Your task to perform on an android device: change alarm snooze length Image 0: 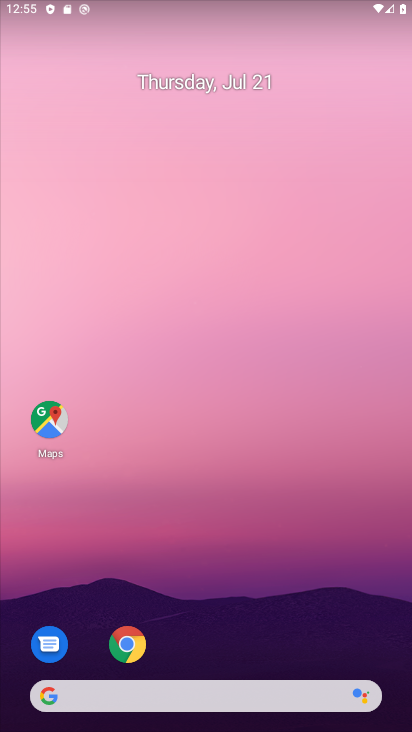
Step 0: drag from (252, 634) to (210, 282)
Your task to perform on an android device: change alarm snooze length Image 1: 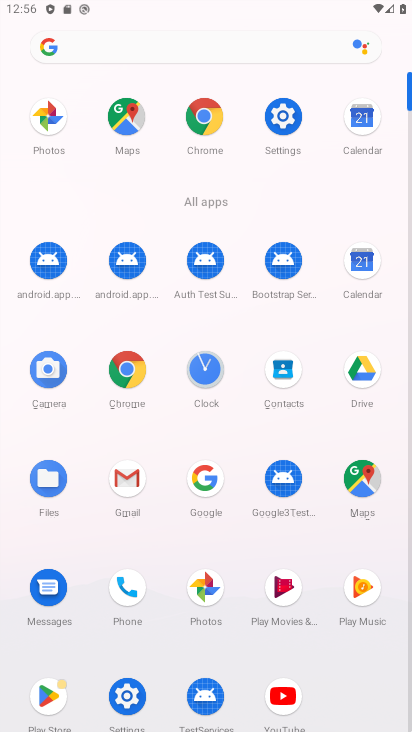
Step 1: click (200, 359)
Your task to perform on an android device: change alarm snooze length Image 2: 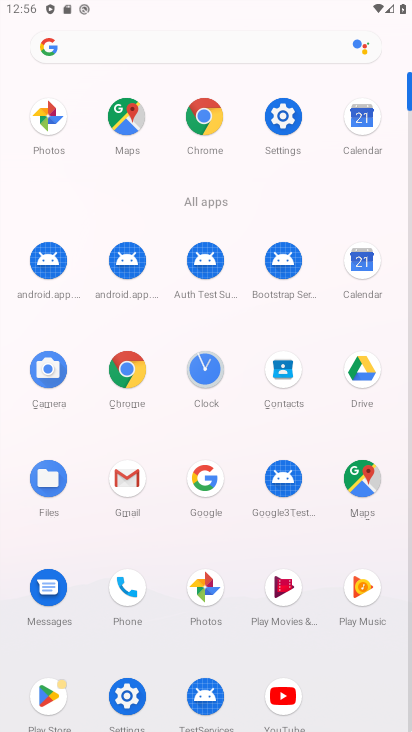
Step 2: click (200, 361)
Your task to perform on an android device: change alarm snooze length Image 3: 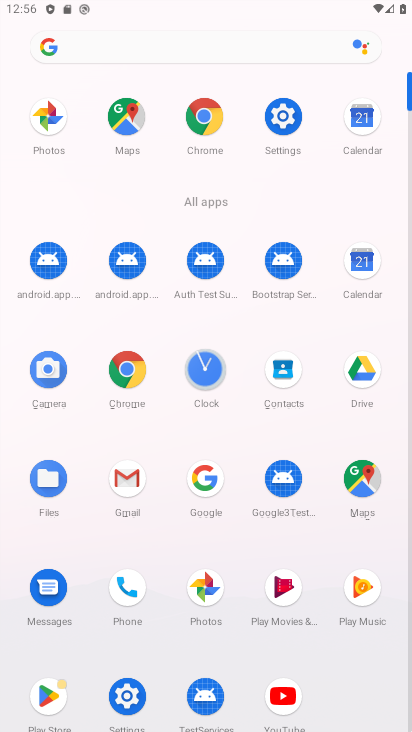
Step 3: click (201, 362)
Your task to perform on an android device: change alarm snooze length Image 4: 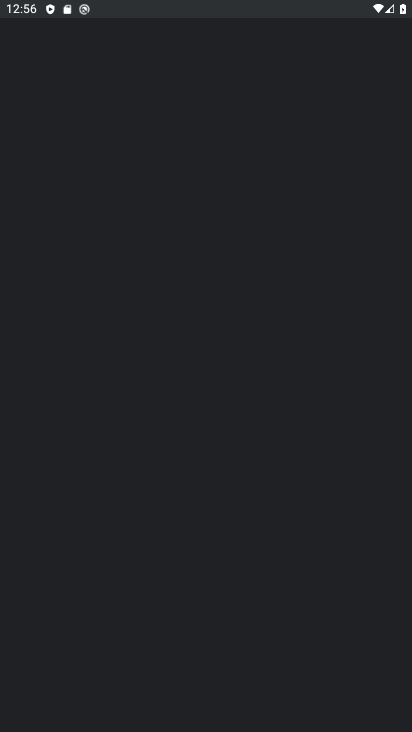
Step 4: click (203, 364)
Your task to perform on an android device: change alarm snooze length Image 5: 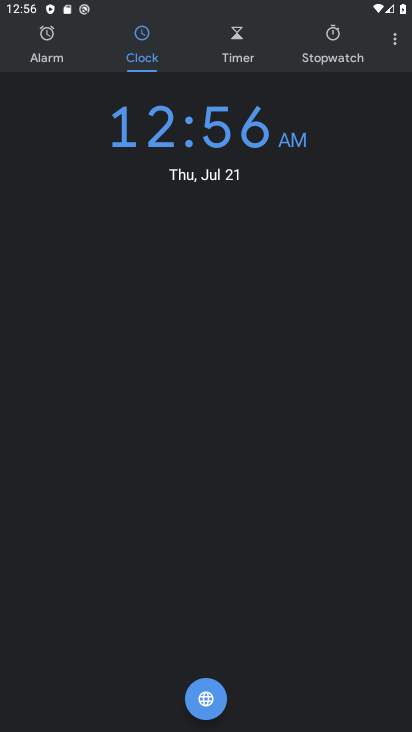
Step 5: click (48, 53)
Your task to perform on an android device: change alarm snooze length Image 6: 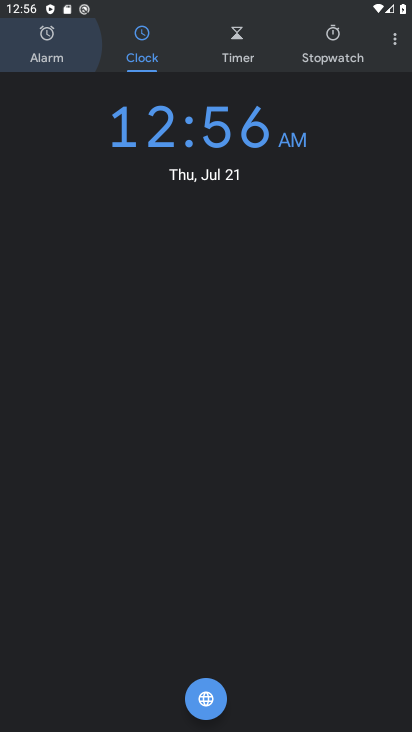
Step 6: click (51, 56)
Your task to perform on an android device: change alarm snooze length Image 7: 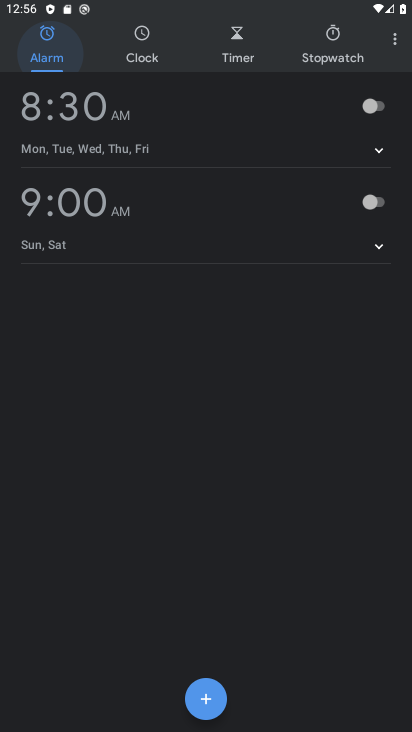
Step 7: click (53, 58)
Your task to perform on an android device: change alarm snooze length Image 8: 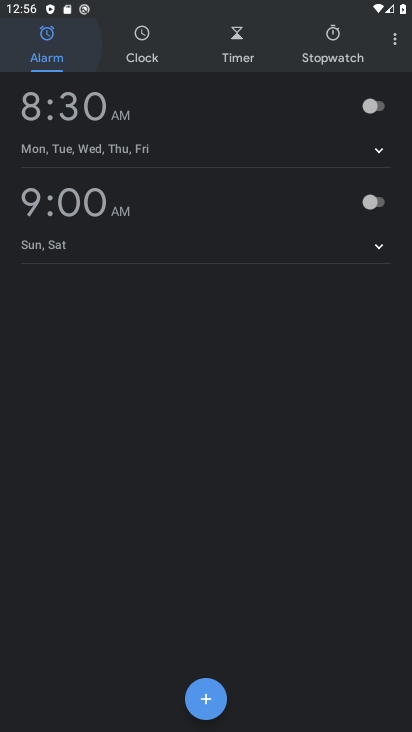
Step 8: click (54, 59)
Your task to perform on an android device: change alarm snooze length Image 9: 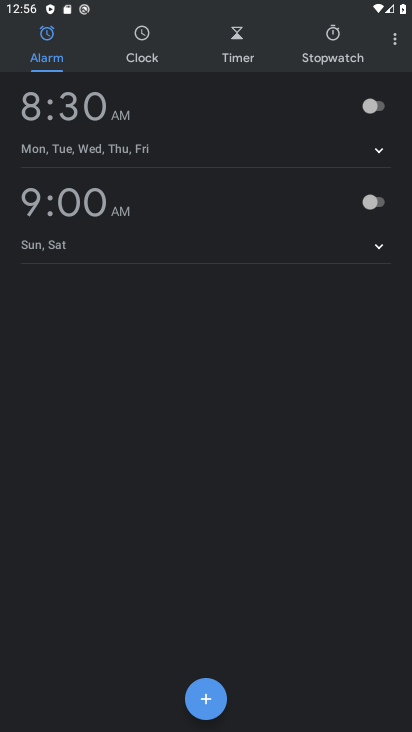
Step 9: click (384, 42)
Your task to perform on an android device: change alarm snooze length Image 10: 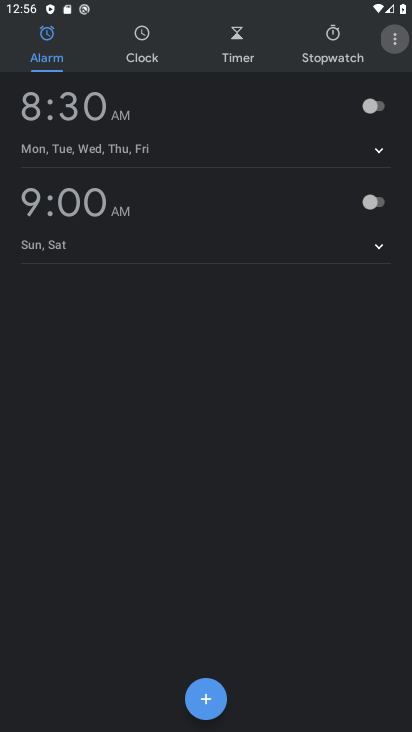
Step 10: click (387, 44)
Your task to perform on an android device: change alarm snooze length Image 11: 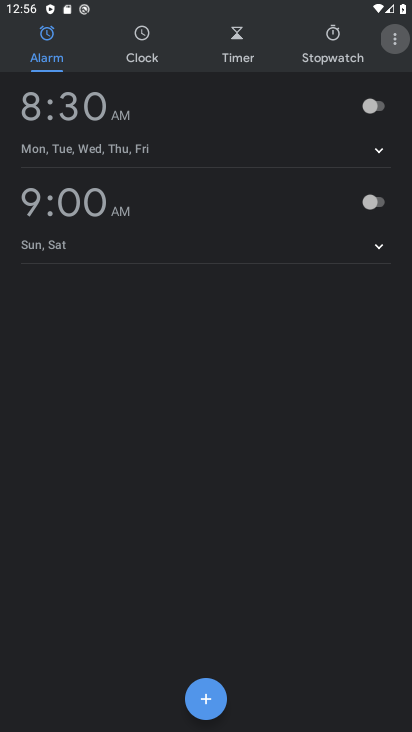
Step 11: click (389, 46)
Your task to perform on an android device: change alarm snooze length Image 12: 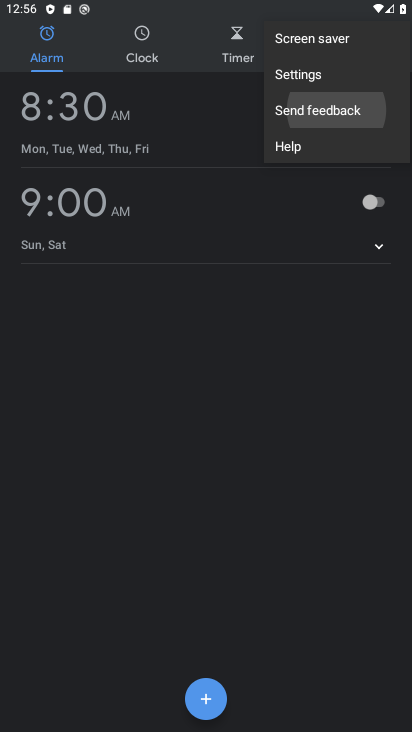
Step 12: click (390, 47)
Your task to perform on an android device: change alarm snooze length Image 13: 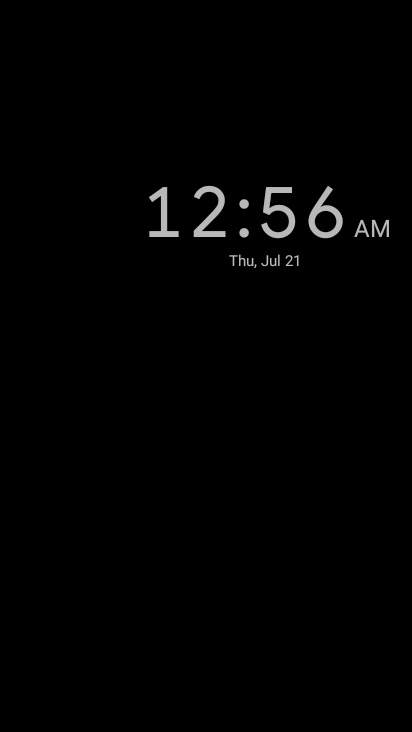
Step 13: press back button
Your task to perform on an android device: change alarm snooze length Image 14: 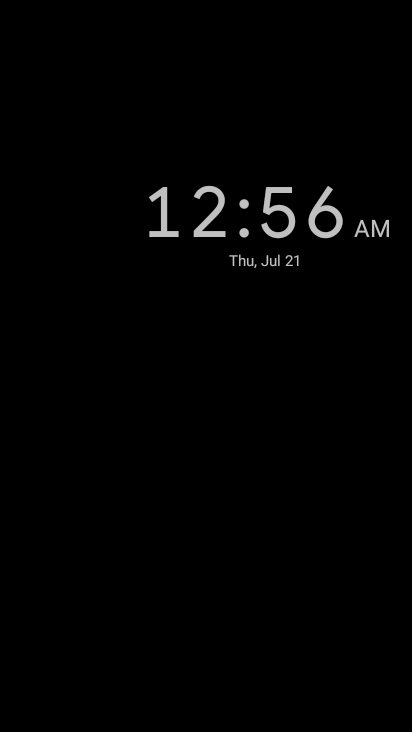
Step 14: press back button
Your task to perform on an android device: change alarm snooze length Image 15: 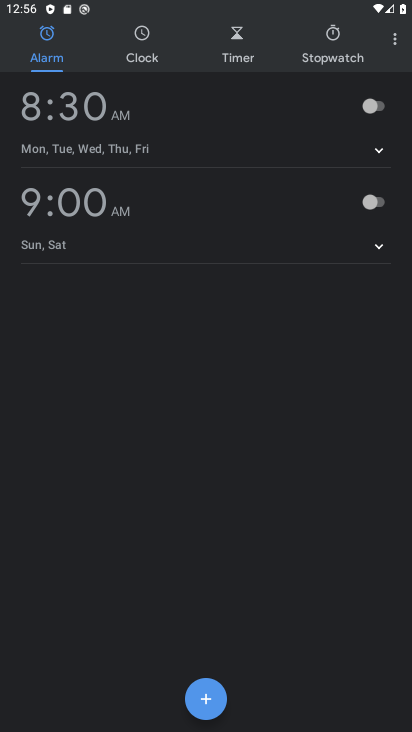
Step 15: click (395, 40)
Your task to perform on an android device: change alarm snooze length Image 16: 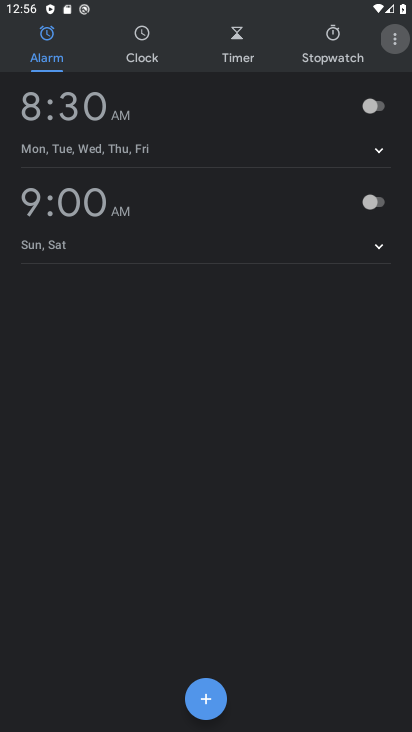
Step 16: click (394, 41)
Your task to perform on an android device: change alarm snooze length Image 17: 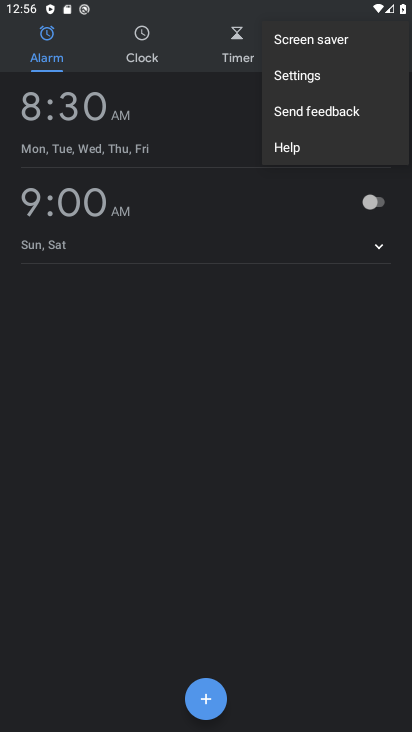
Step 17: click (308, 84)
Your task to perform on an android device: change alarm snooze length Image 18: 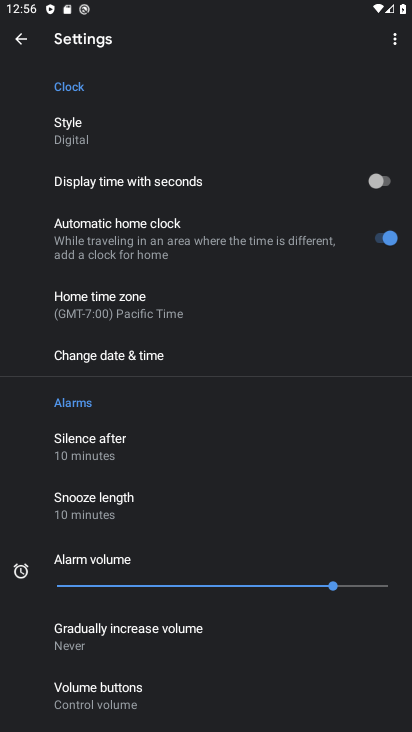
Step 18: drag from (128, 585) to (124, 307)
Your task to perform on an android device: change alarm snooze length Image 19: 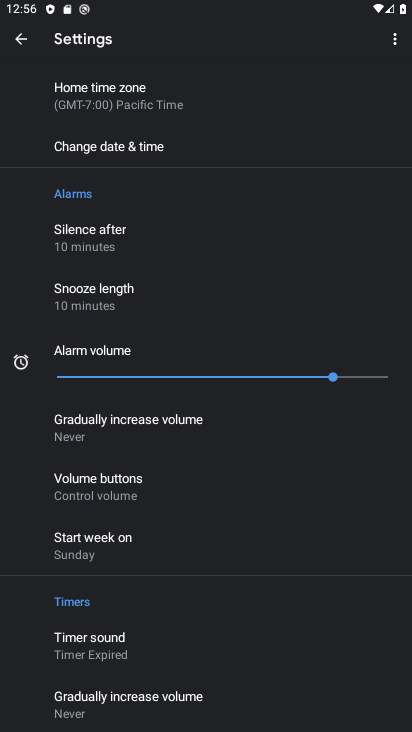
Step 19: click (86, 296)
Your task to perform on an android device: change alarm snooze length Image 20: 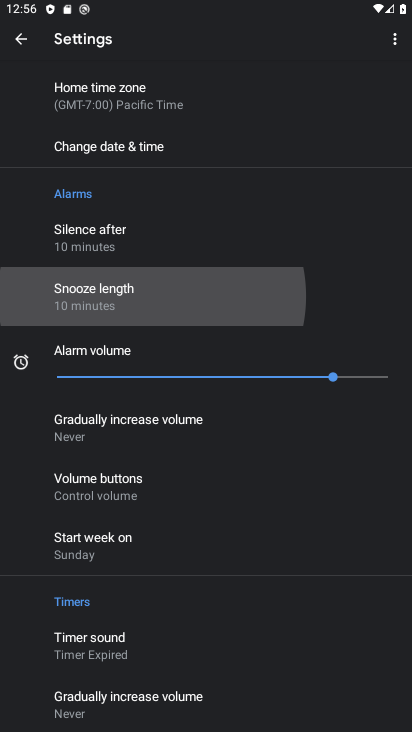
Step 20: click (86, 295)
Your task to perform on an android device: change alarm snooze length Image 21: 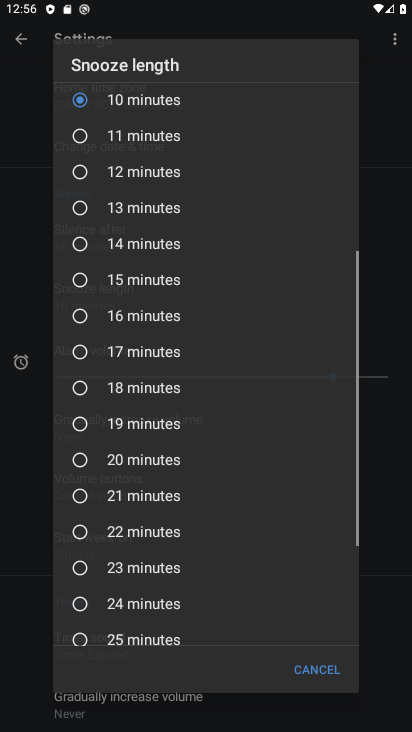
Step 21: click (91, 292)
Your task to perform on an android device: change alarm snooze length Image 22: 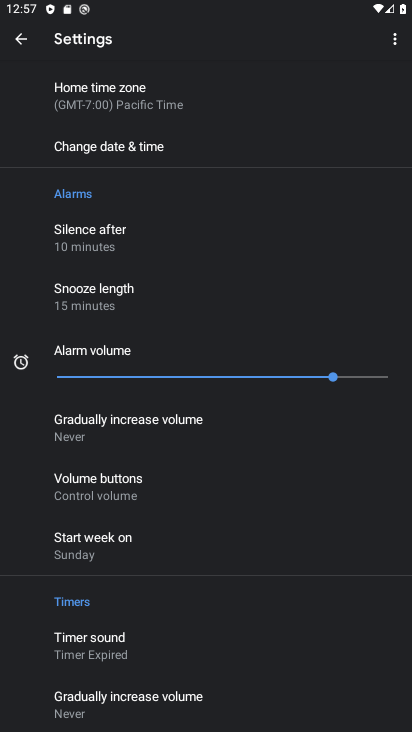
Step 22: click (77, 296)
Your task to perform on an android device: change alarm snooze length Image 23: 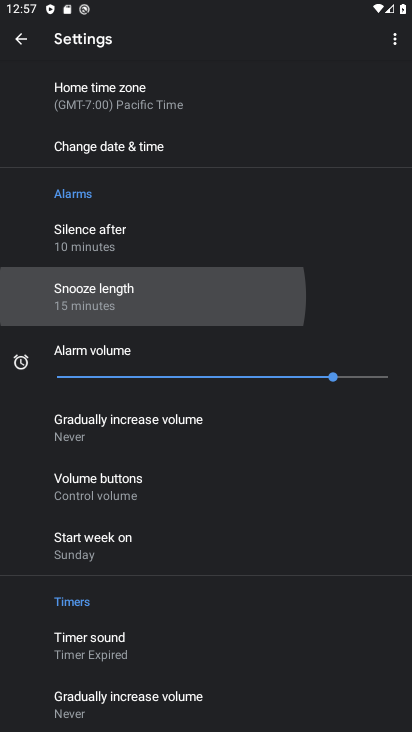
Step 23: click (78, 300)
Your task to perform on an android device: change alarm snooze length Image 24: 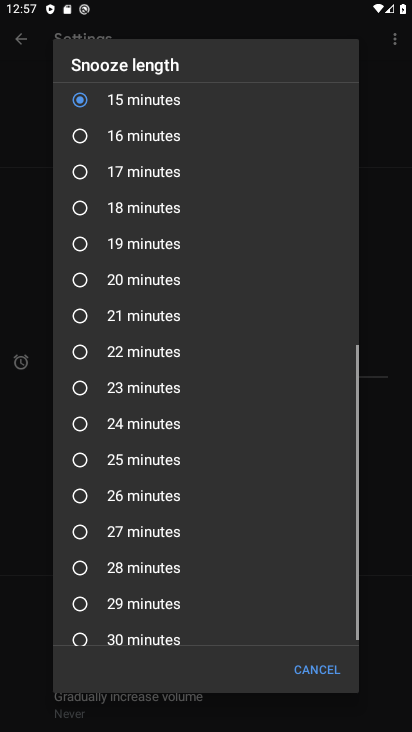
Step 24: click (84, 273)
Your task to perform on an android device: change alarm snooze length Image 25: 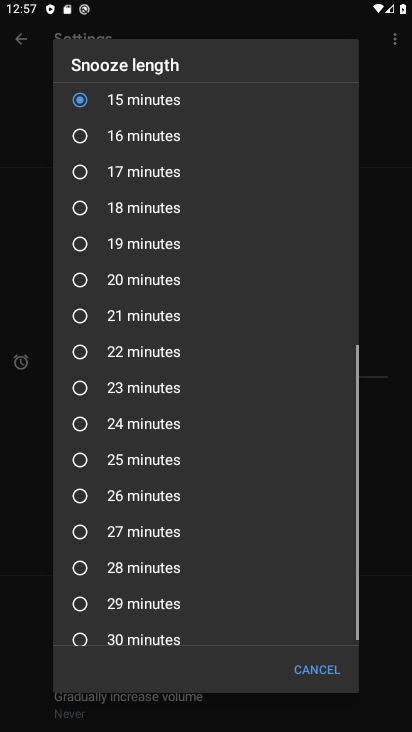
Step 25: click (84, 273)
Your task to perform on an android device: change alarm snooze length Image 26: 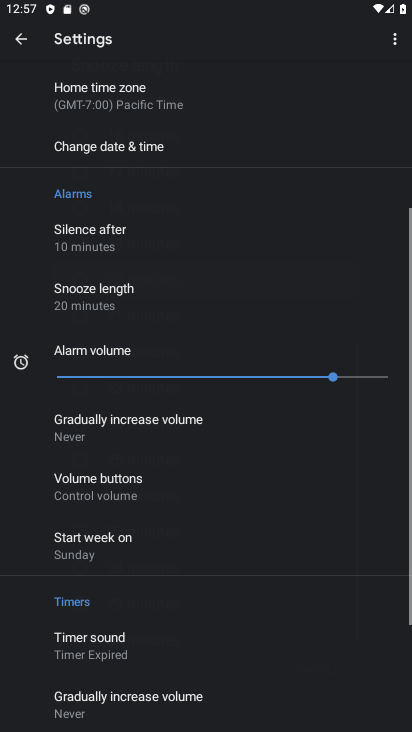
Step 26: click (84, 273)
Your task to perform on an android device: change alarm snooze length Image 27: 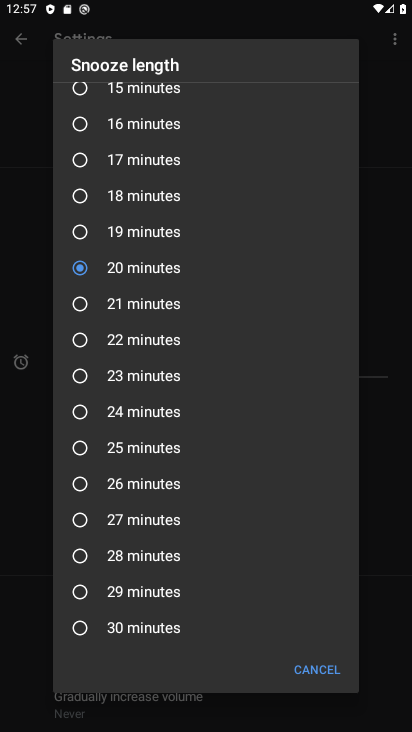
Step 27: task complete